Your task to perform on an android device: Open Google Chrome and open the bookmarks view Image 0: 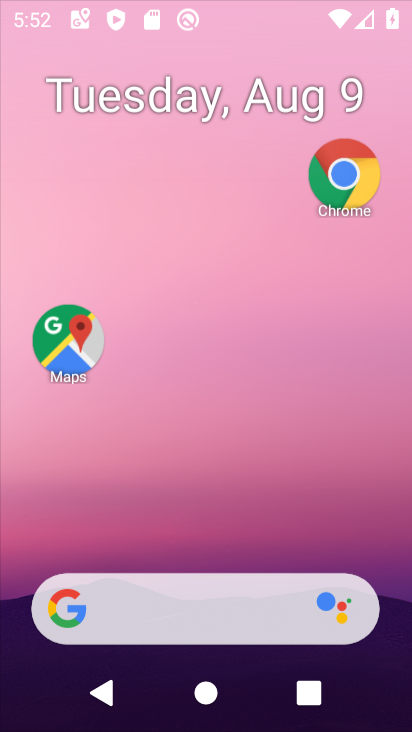
Step 0: click (217, 184)
Your task to perform on an android device: Open Google Chrome and open the bookmarks view Image 1: 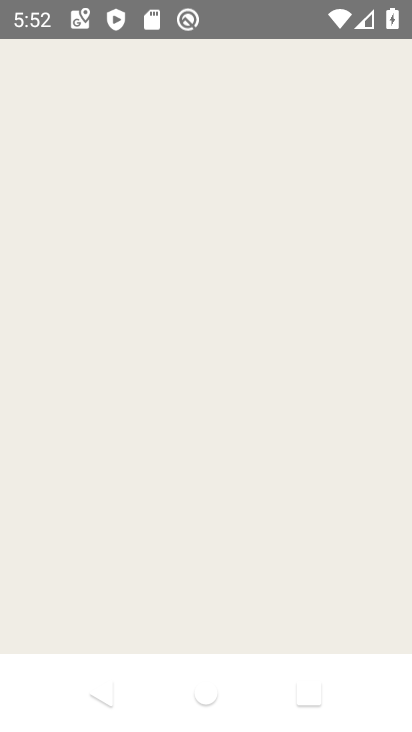
Step 1: press home button
Your task to perform on an android device: Open Google Chrome and open the bookmarks view Image 2: 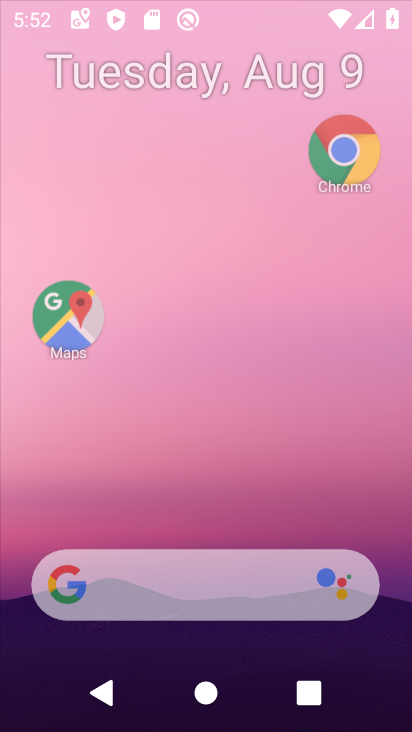
Step 2: drag from (185, 572) to (186, 196)
Your task to perform on an android device: Open Google Chrome and open the bookmarks view Image 3: 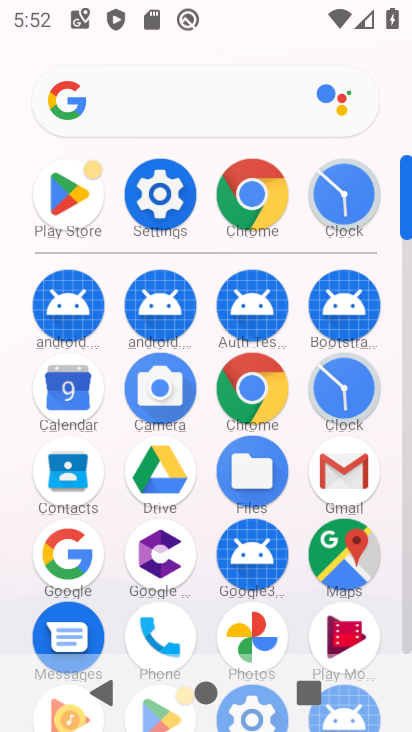
Step 3: click (246, 383)
Your task to perform on an android device: Open Google Chrome and open the bookmarks view Image 4: 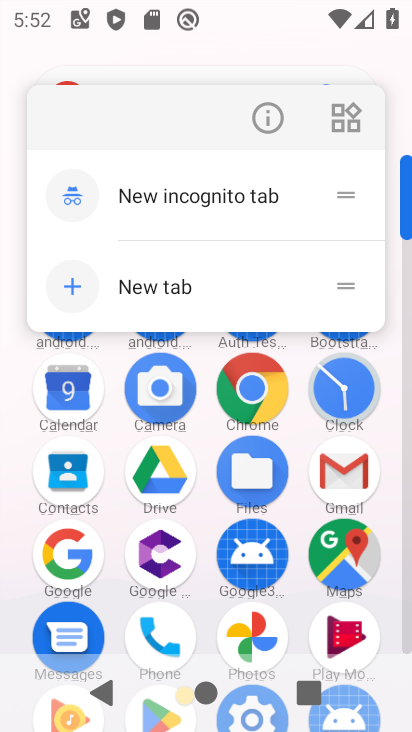
Step 4: click (274, 121)
Your task to perform on an android device: Open Google Chrome and open the bookmarks view Image 5: 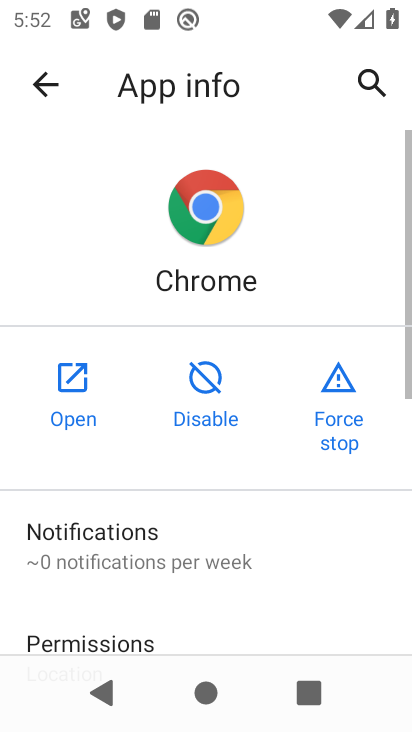
Step 5: click (95, 345)
Your task to perform on an android device: Open Google Chrome and open the bookmarks view Image 6: 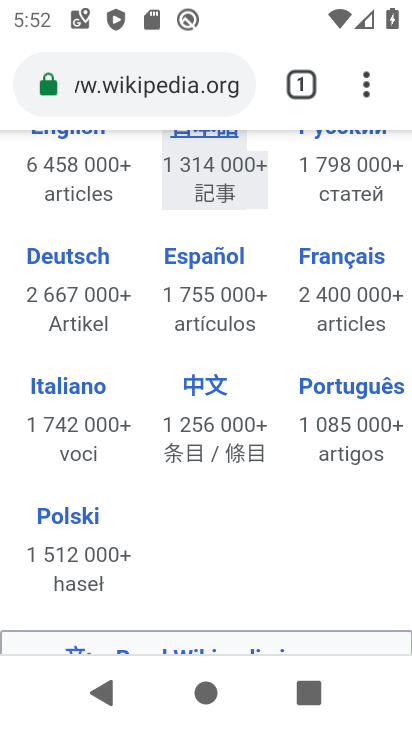
Step 6: click (233, 103)
Your task to perform on an android device: Open Google Chrome and open the bookmarks view Image 7: 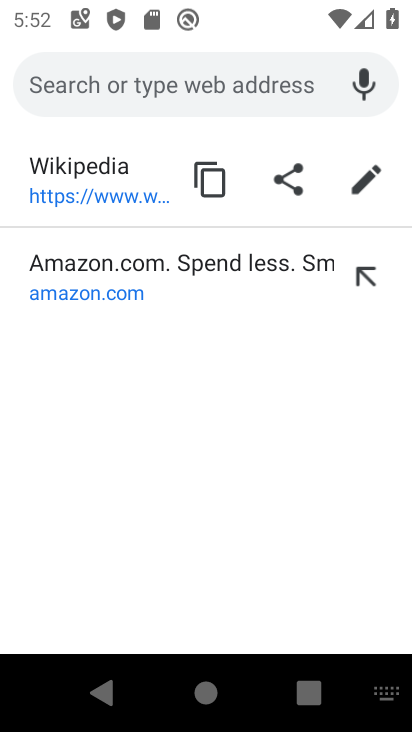
Step 7: task complete